Your task to perform on an android device: toggle airplane mode Image 0: 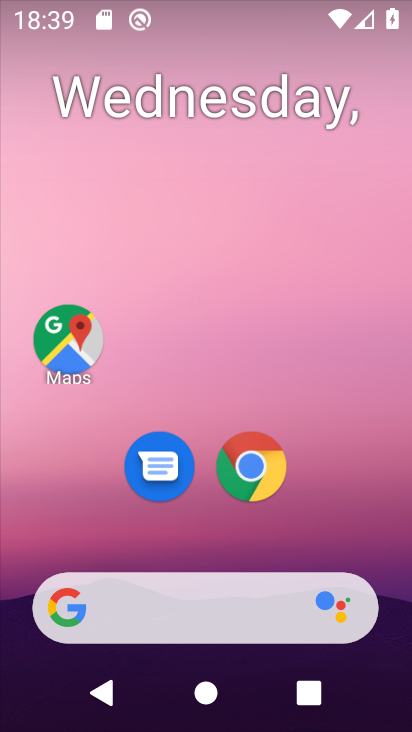
Step 0: drag from (346, 496) to (251, 145)
Your task to perform on an android device: toggle airplane mode Image 1: 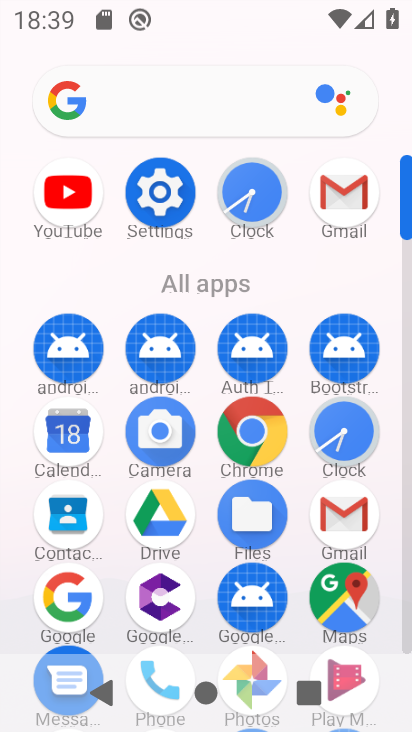
Step 1: click (152, 191)
Your task to perform on an android device: toggle airplane mode Image 2: 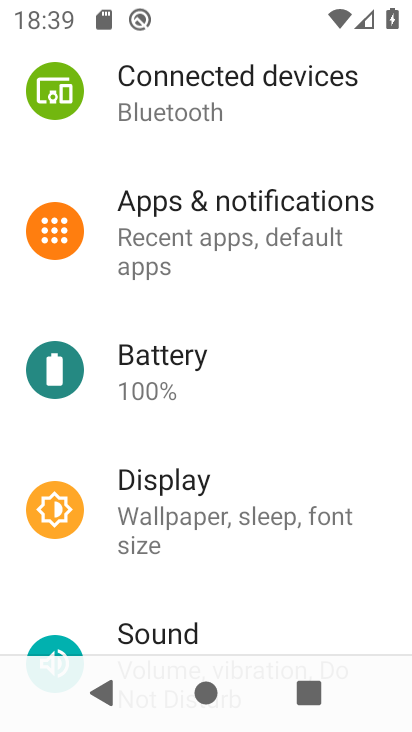
Step 2: drag from (283, 300) to (260, 657)
Your task to perform on an android device: toggle airplane mode Image 3: 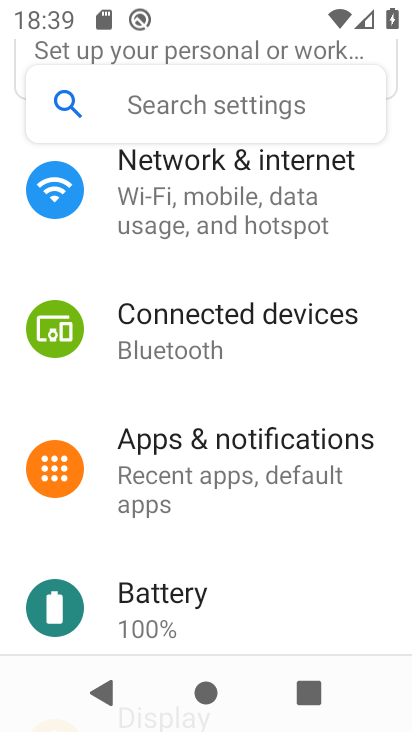
Step 3: click (196, 170)
Your task to perform on an android device: toggle airplane mode Image 4: 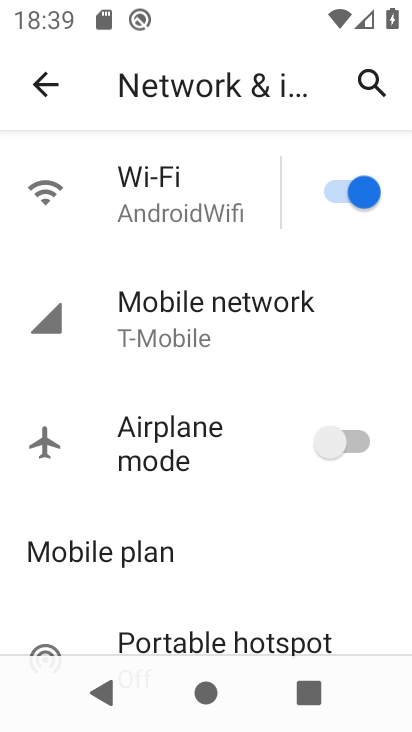
Step 4: click (333, 444)
Your task to perform on an android device: toggle airplane mode Image 5: 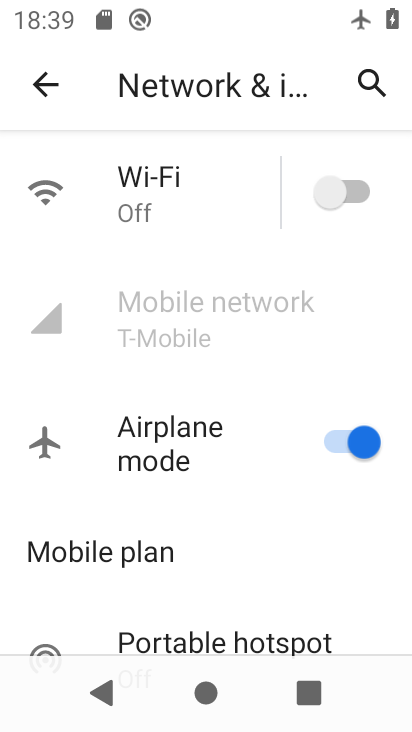
Step 5: task complete